Your task to perform on an android device: show emergency info Image 0: 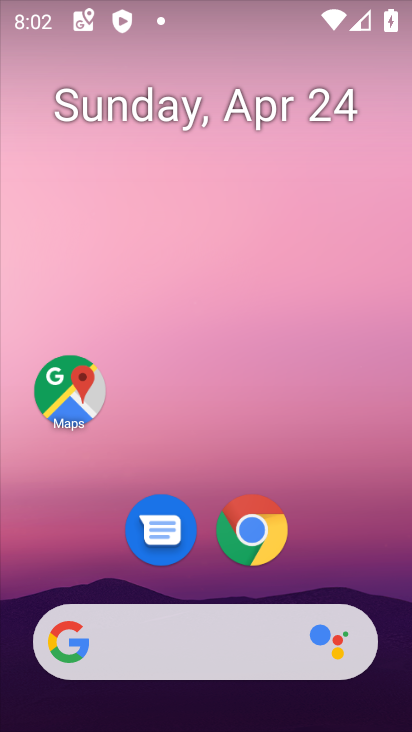
Step 0: drag from (208, 573) to (229, 15)
Your task to perform on an android device: show emergency info Image 1: 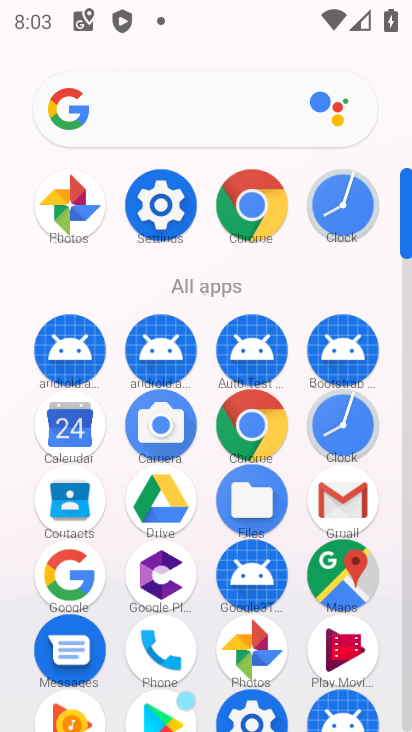
Step 1: click (150, 193)
Your task to perform on an android device: show emergency info Image 2: 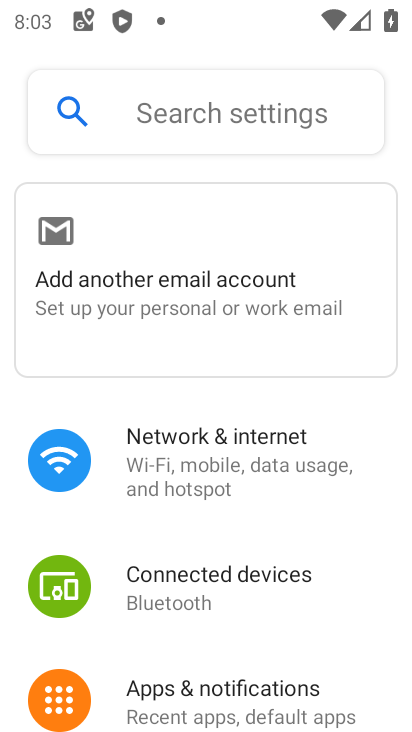
Step 2: drag from (143, 672) to (218, 91)
Your task to perform on an android device: show emergency info Image 3: 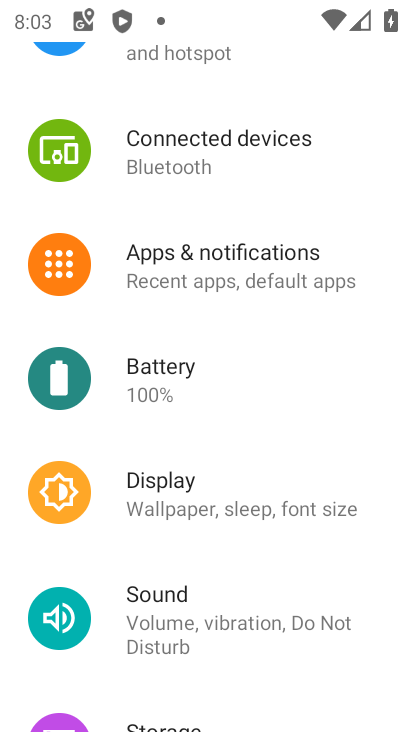
Step 3: drag from (145, 652) to (204, 20)
Your task to perform on an android device: show emergency info Image 4: 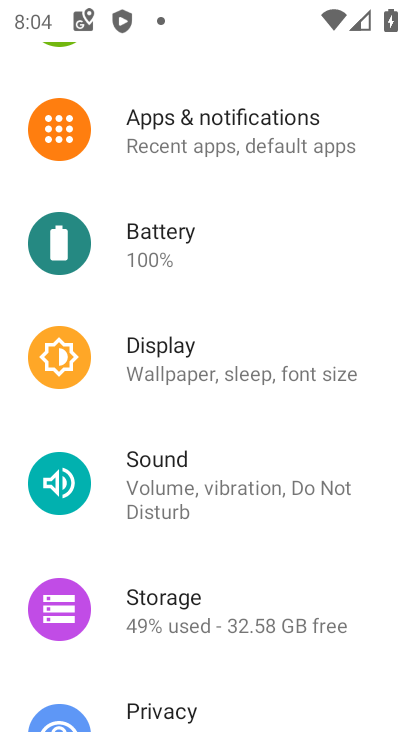
Step 4: drag from (207, 674) to (294, 244)
Your task to perform on an android device: show emergency info Image 5: 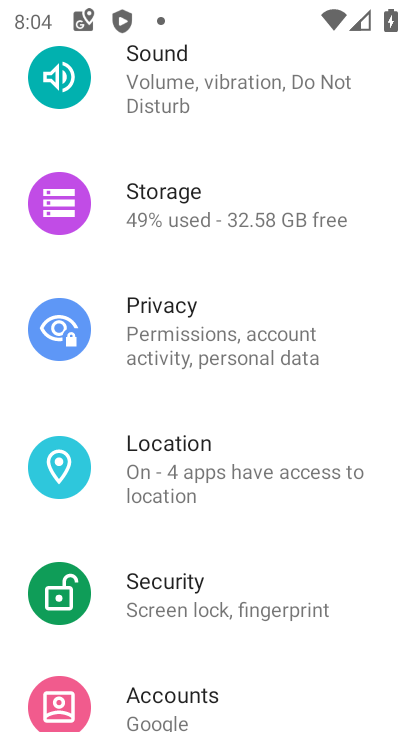
Step 5: drag from (185, 618) to (250, 152)
Your task to perform on an android device: show emergency info Image 6: 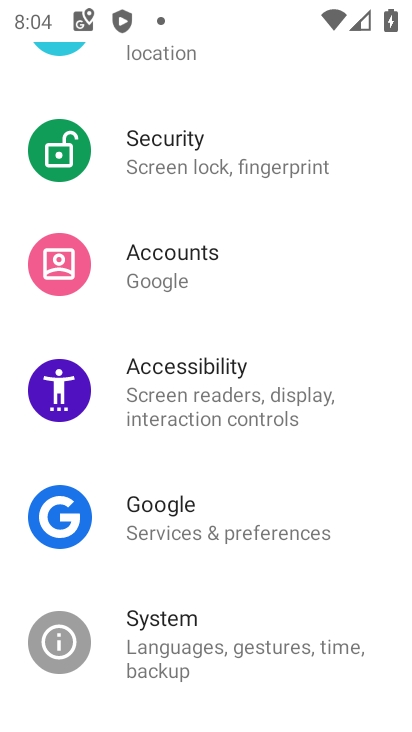
Step 6: click (190, 691)
Your task to perform on an android device: show emergency info Image 7: 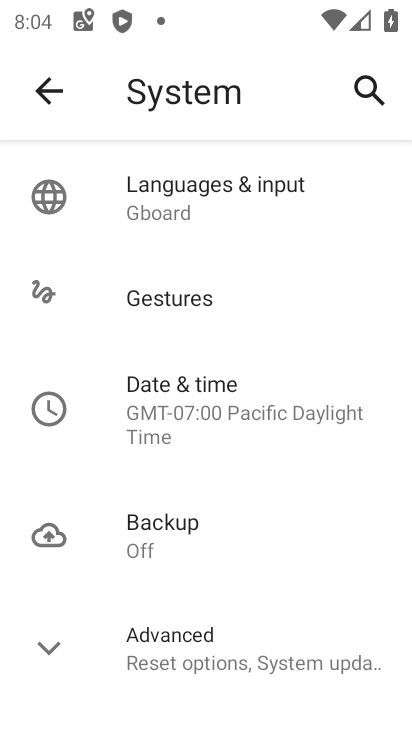
Step 7: drag from (150, 637) to (243, 161)
Your task to perform on an android device: show emergency info Image 8: 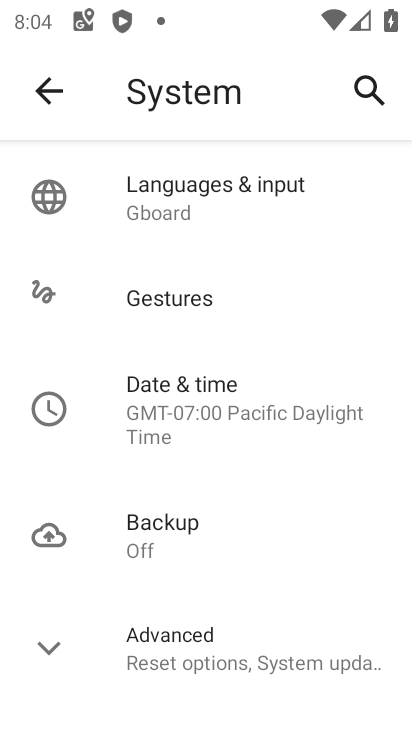
Step 8: drag from (153, 693) to (241, 136)
Your task to perform on an android device: show emergency info Image 9: 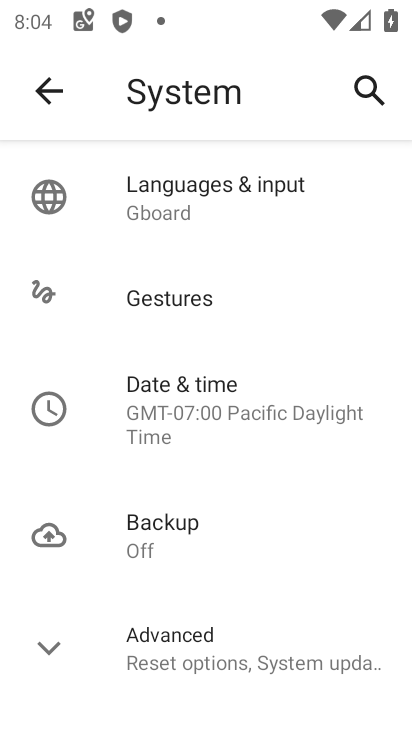
Step 9: drag from (162, 670) to (229, 109)
Your task to perform on an android device: show emergency info Image 10: 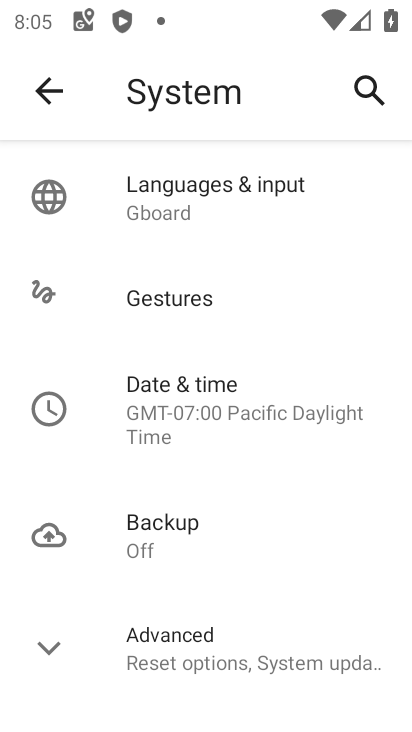
Step 10: click (163, 641)
Your task to perform on an android device: show emergency info Image 11: 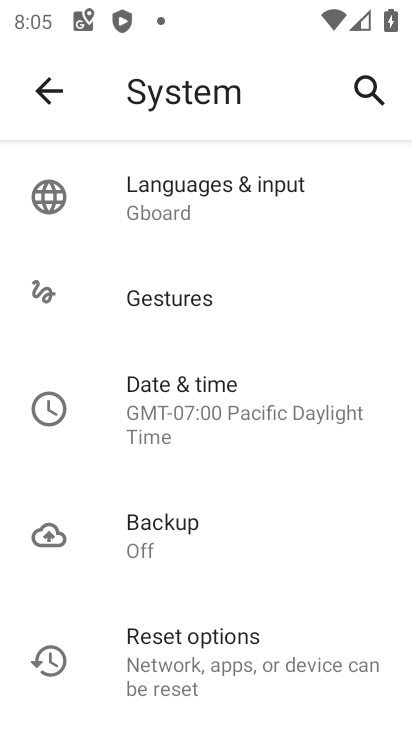
Step 11: drag from (134, 616) to (174, 193)
Your task to perform on an android device: show emergency info Image 12: 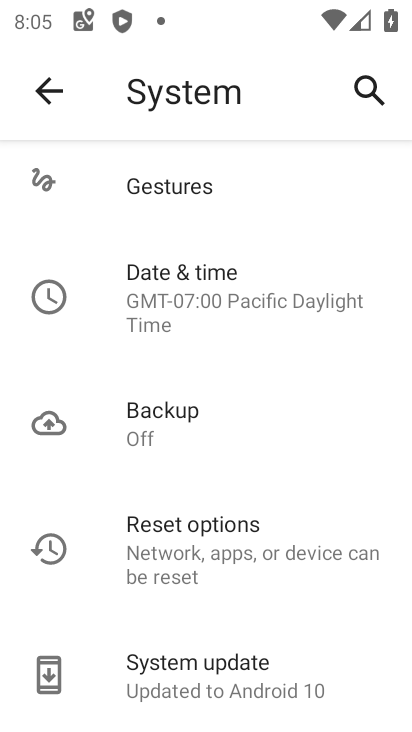
Step 12: click (60, 91)
Your task to perform on an android device: show emergency info Image 13: 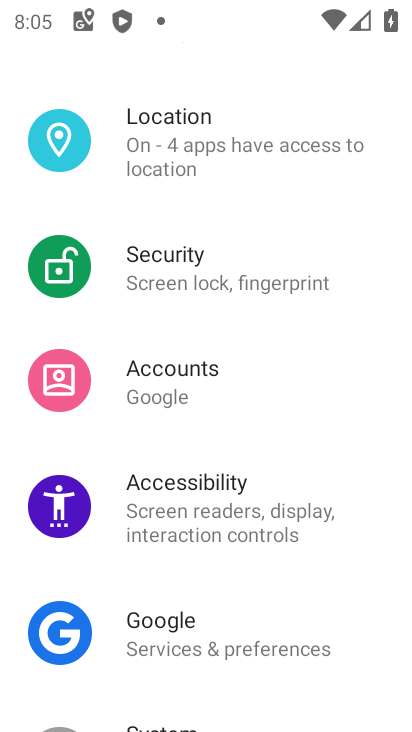
Step 13: drag from (214, 673) to (274, 99)
Your task to perform on an android device: show emergency info Image 14: 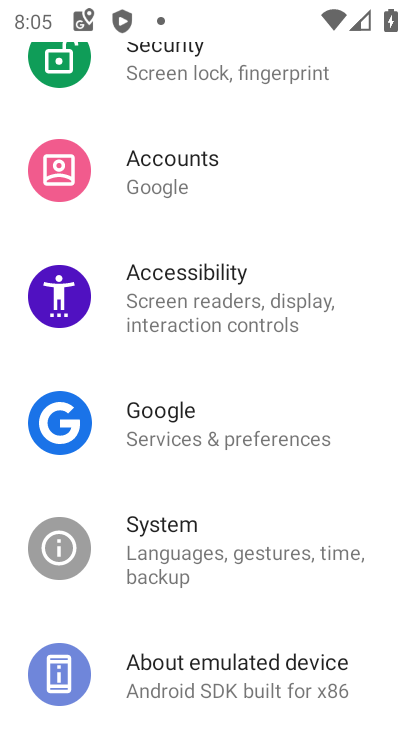
Step 14: drag from (146, 663) to (234, 215)
Your task to perform on an android device: show emergency info Image 15: 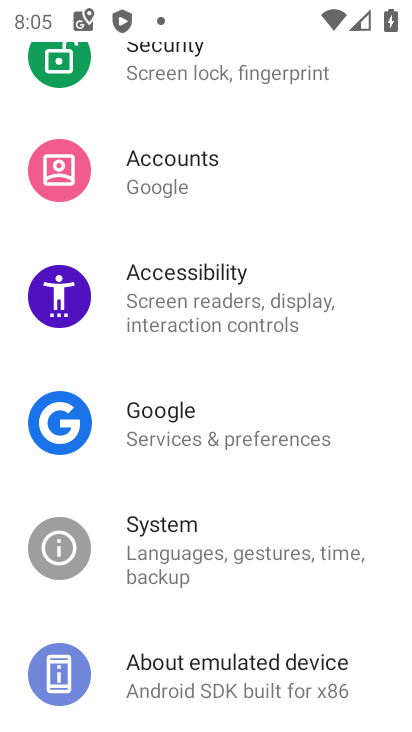
Step 15: click (159, 679)
Your task to perform on an android device: show emergency info Image 16: 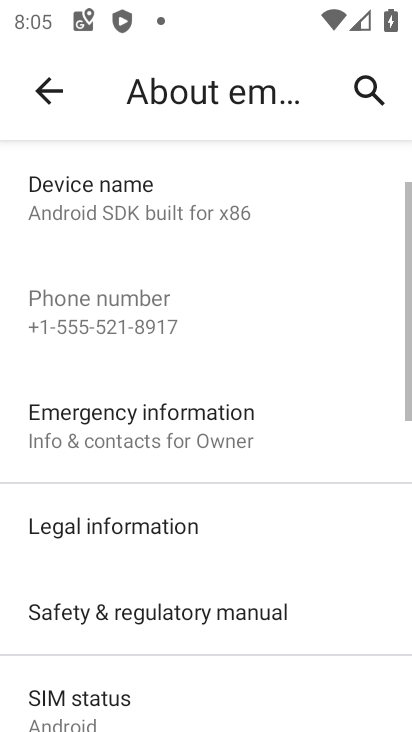
Step 16: drag from (153, 679) to (164, 174)
Your task to perform on an android device: show emergency info Image 17: 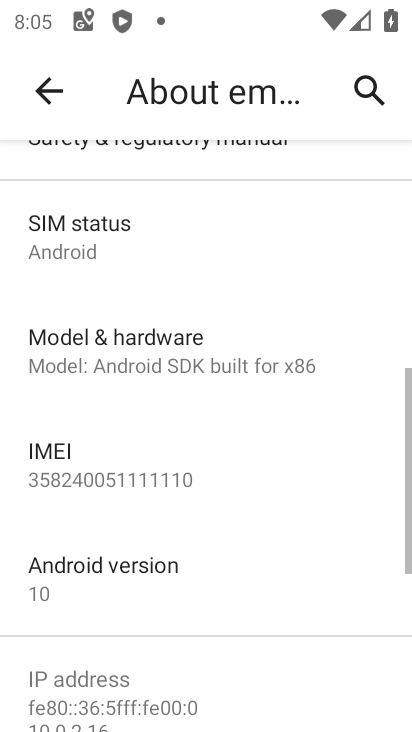
Step 17: drag from (143, 635) to (189, 71)
Your task to perform on an android device: show emergency info Image 18: 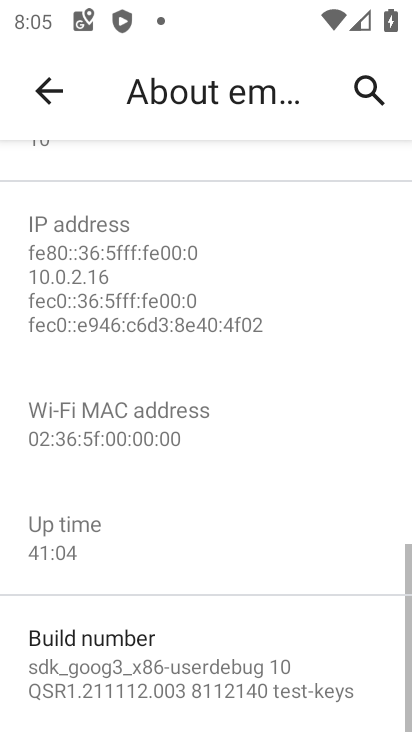
Step 18: drag from (168, 252) to (197, 686)
Your task to perform on an android device: show emergency info Image 19: 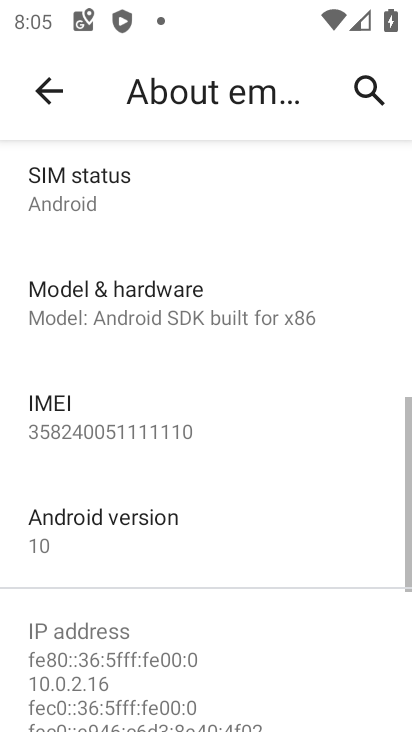
Step 19: drag from (131, 247) to (171, 614)
Your task to perform on an android device: show emergency info Image 20: 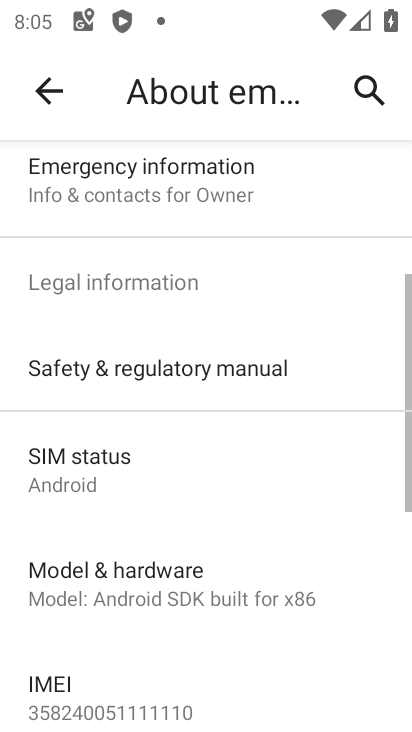
Step 20: click (148, 199)
Your task to perform on an android device: show emergency info Image 21: 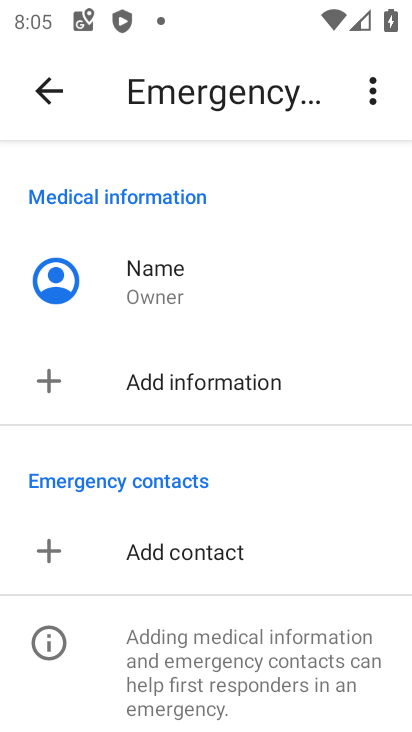
Step 21: task complete